Your task to perform on an android device: Open Google Chrome and open the bookmarks view Image 0: 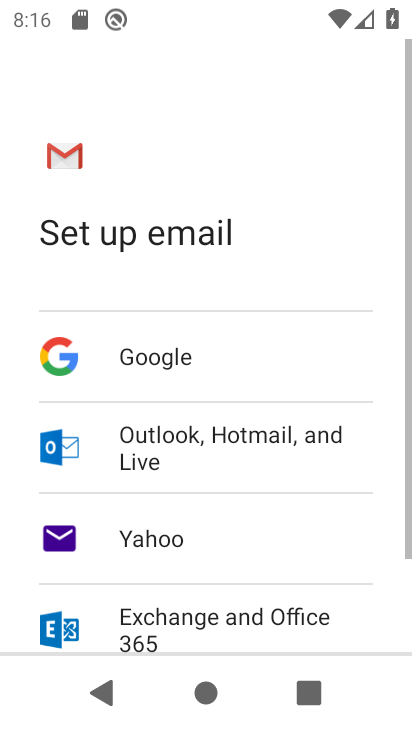
Step 0: press home button
Your task to perform on an android device: Open Google Chrome and open the bookmarks view Image 1: 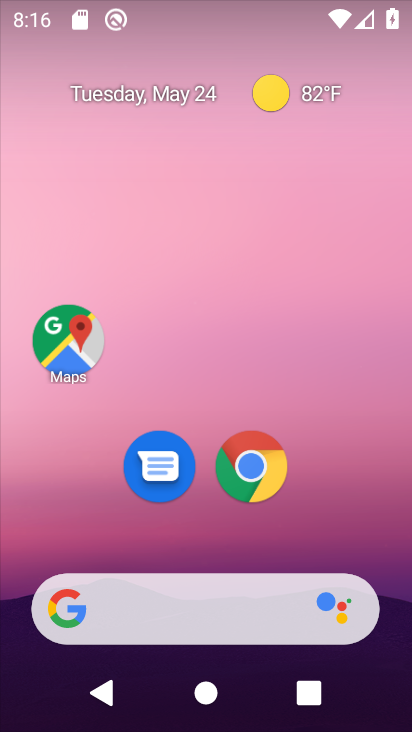
Step 1: click (256, 448)
Your task to perform on an android device: Open Google Chrome and open the bookmarks view Image 2: 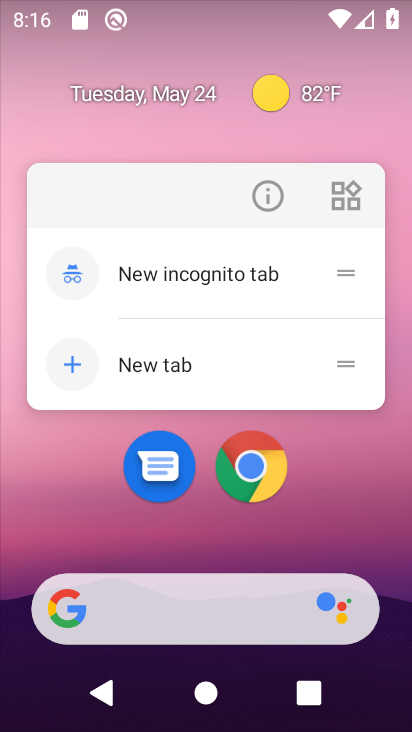
Step 2: click (249, 471)
Your task to perform on an android device: Open Google Chrome and open the bookmarks view Image 3: 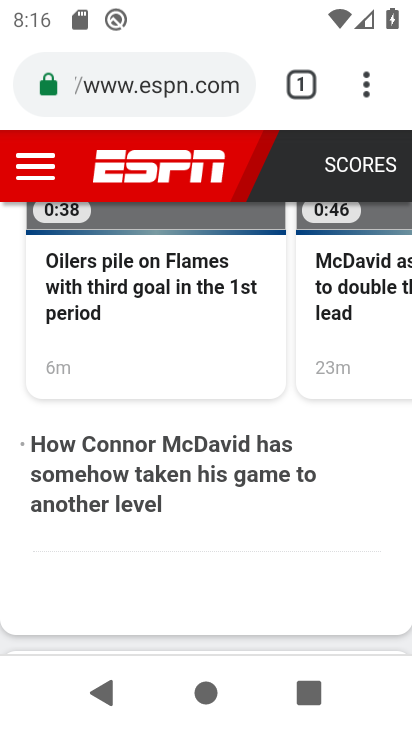
Step 3: click (372, 85)
Your task to perform on an android device: Open Google Chrome and open the bookmarks view Image 4: 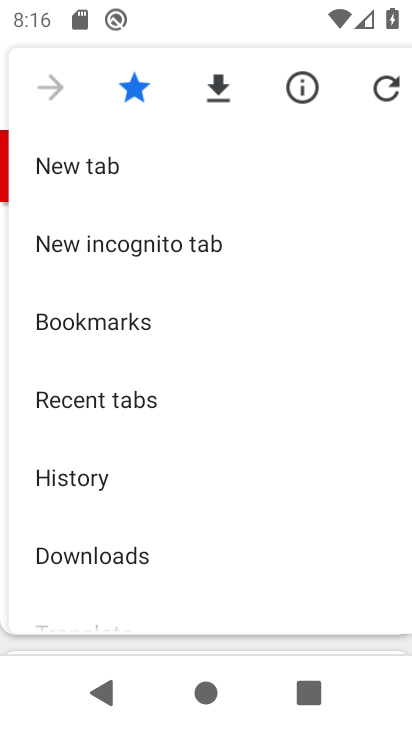
Step 4: drag from (136, 551) to (190, 179)
Your task to perform on an android device: Open Google Chrome and open the bookmarks view Image 5: 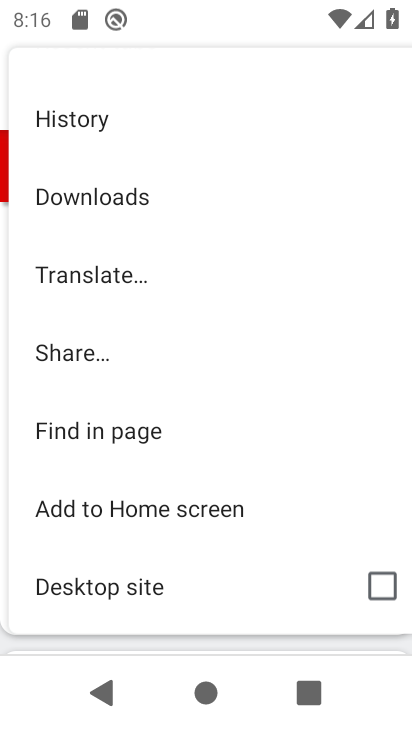
Step 5: drag from (108, 594) to (155, 281)
Your task to perform on an android device: Open Google Chrome and open the bookmarks view Image 6: 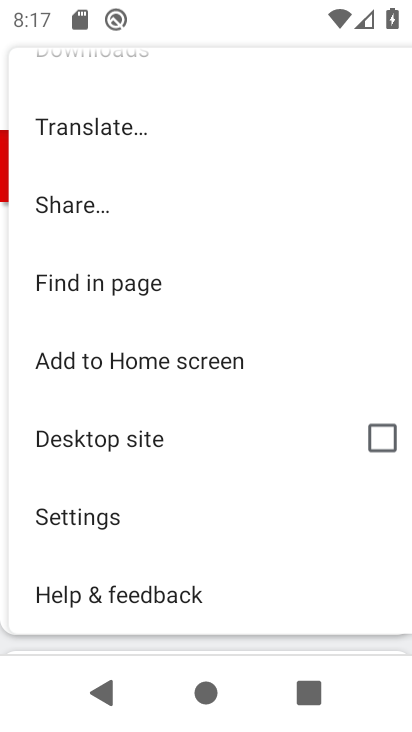
Step 6: drag from (164, 164) to (100, 508)
Your task to perform on an android device: Open Google Chrome and open the bookmarks view Image 7: 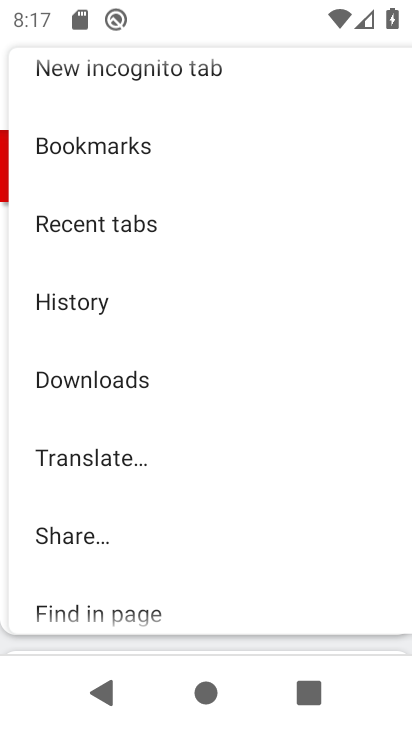
Step 7: click (106, 152)
Your task to perform on an android device: Open Google Chrome and open the bookmarks view Image 8: 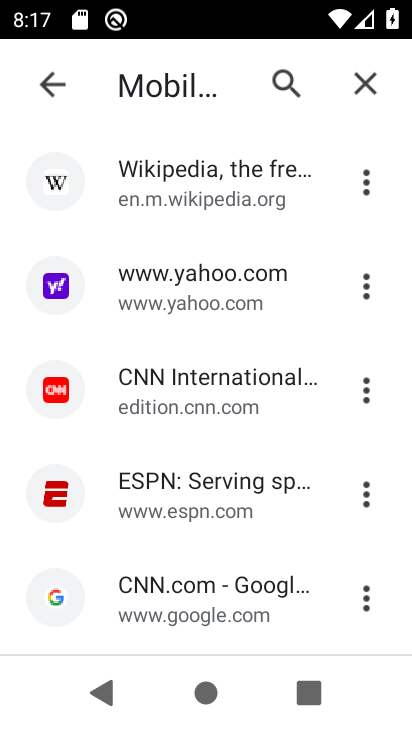
Step 8: task complete